Your task to perform on an android device: make emails show in primary in the gmail app Image 0: 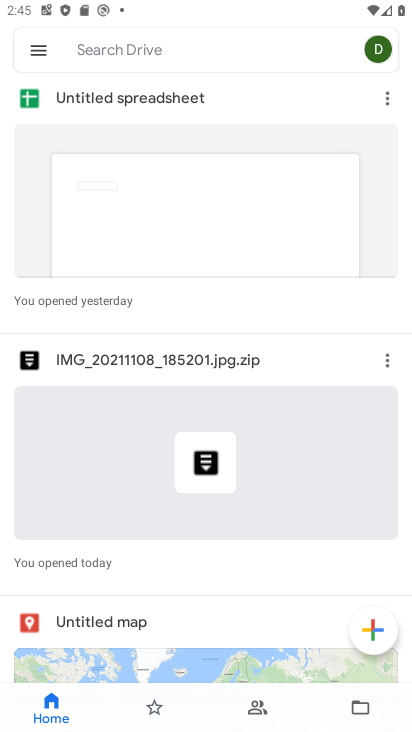
Step 0: press home button
Your task to perform on an android device: make emails show in primary in the gmail app Image 1: 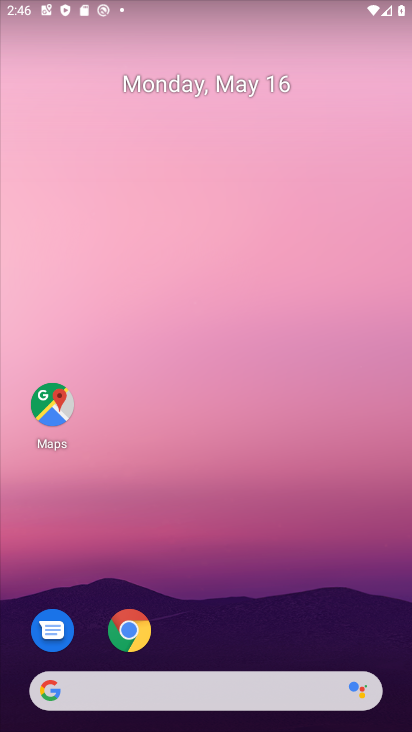
Step 1: drag from (270, 172) to (276, 87)
Your task to perform on an android device: make emails show in primary in the gmail app Image 2: 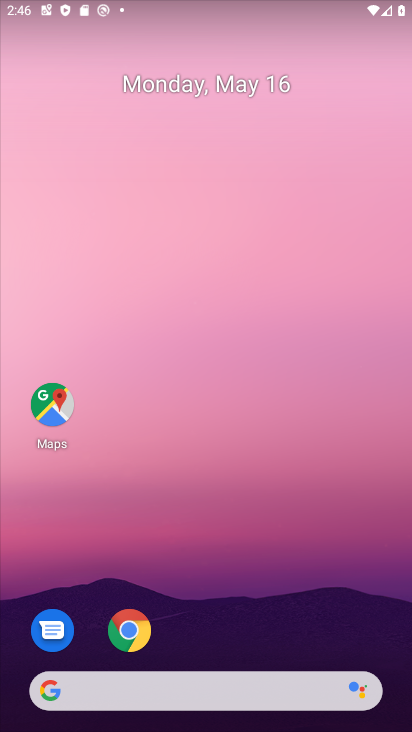
Step 2: drag from (207, 645) to (245, 95)
Your task to perform on an android device: make emails show in primary in the gmail app Image 3: 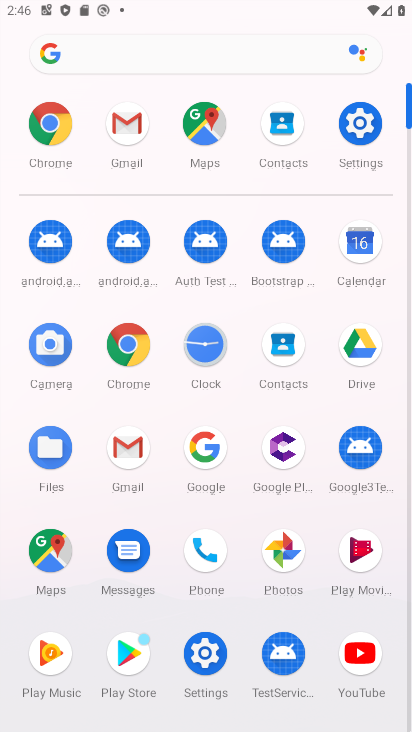
Step 3: click (129, 447)
Your task to perform on an android device: make emails show in primary in the gmail app Image 4: 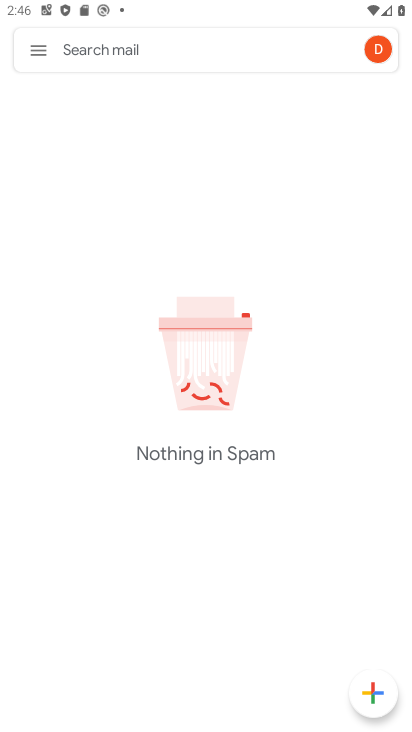
Step 4: click (37, 42)
Your task to perform on an android device: make emails show in primary in the gmail app Image 5: 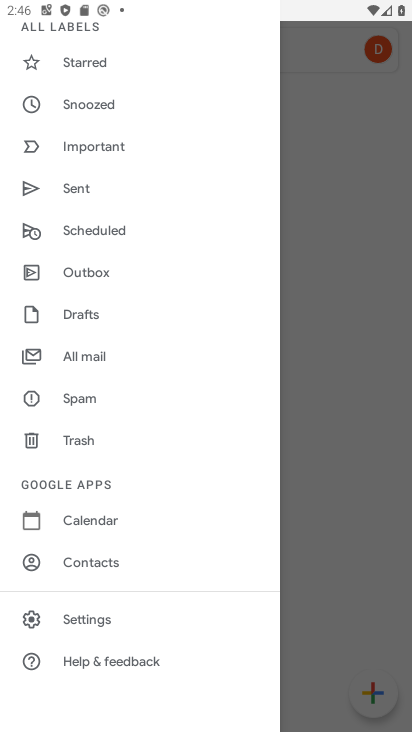
Step 5: click (108, 602)
Your task to perform on an android device: make emails show in primary in the gmail app Image 6: 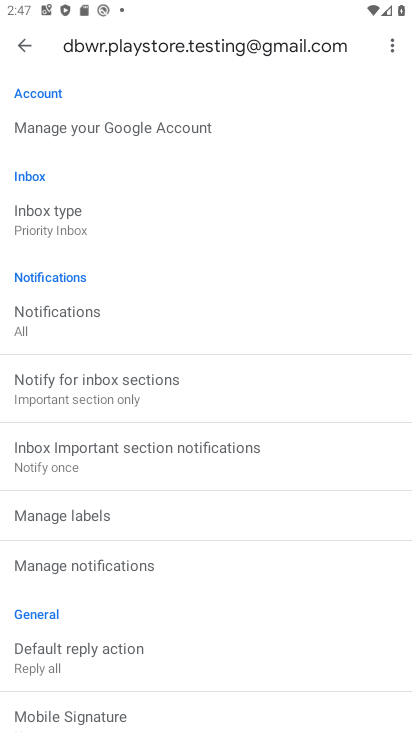
Step 6: click (103, 217)
Your task to perform on an android device: make emails show in primary in the gmail app Image 7: 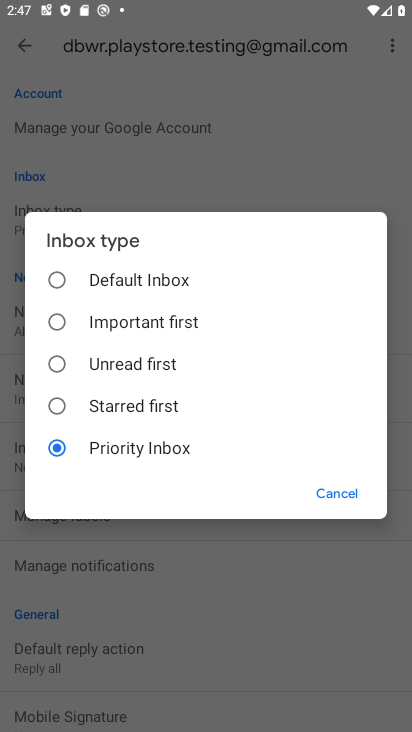
Step 7: click (60, 274)
Your task to perform on an android device: make emails show in primary in the gmail app Image 8: 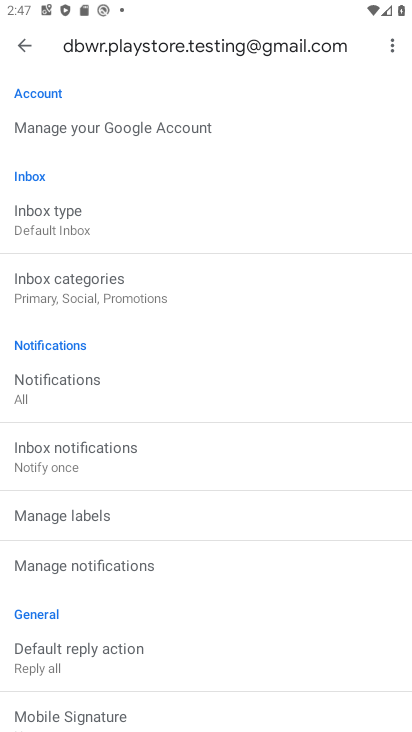
Step 8: task complete